Your task to perform on an android device: Go to notification settings Image 0: 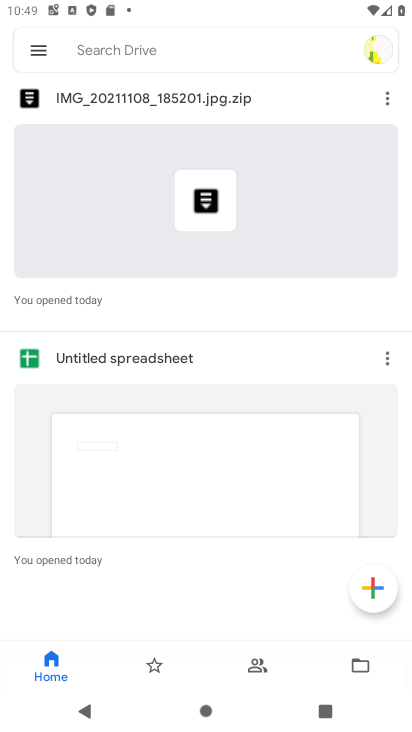
Step 0: press home button
Your task to perform on an android device: Go to notification settings Image 1: 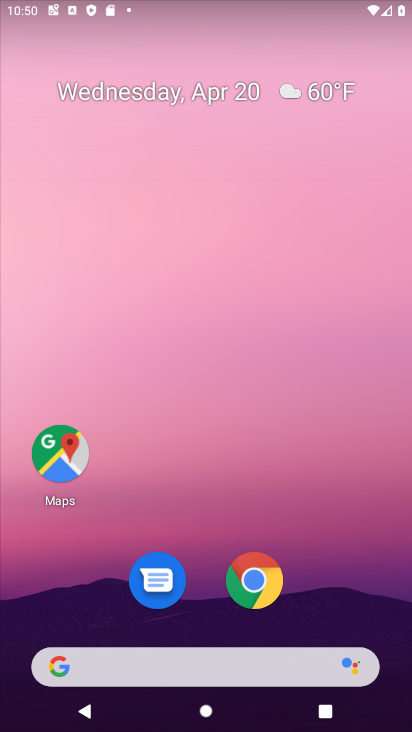
Step 1: drag from (245, 655) to (212, 159)
Your task to perform on an android device: Go to notification settings Image 2: 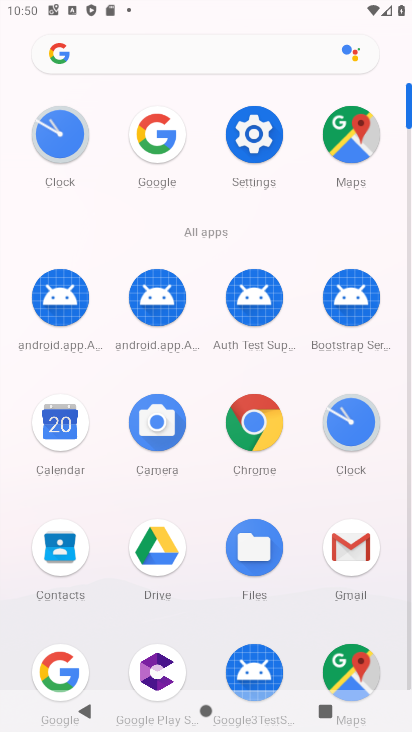
Step 2: click (262, 158)
Your task to perform on an android device: Go to notification settings Image 3: 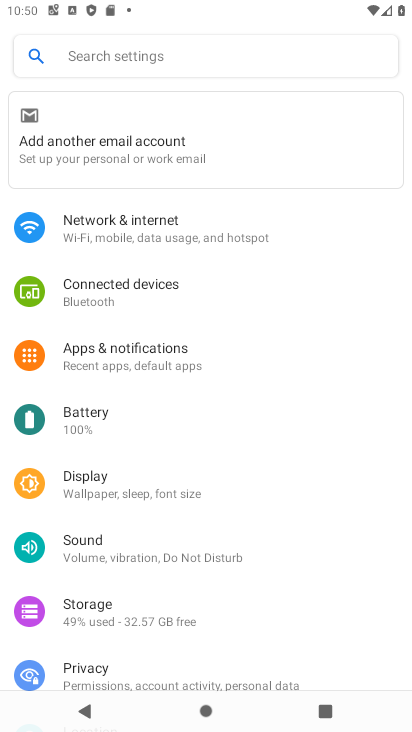
Step 3: click (156, 356)
Your task to perform on an android device: Go to notification settings Image 4: 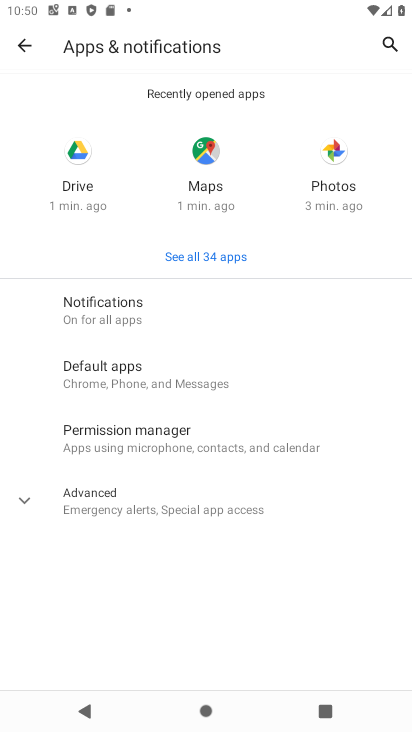
Step 4: task complete